Your task to perform on an android device: turn smart compose on in the gmail app Image 0: 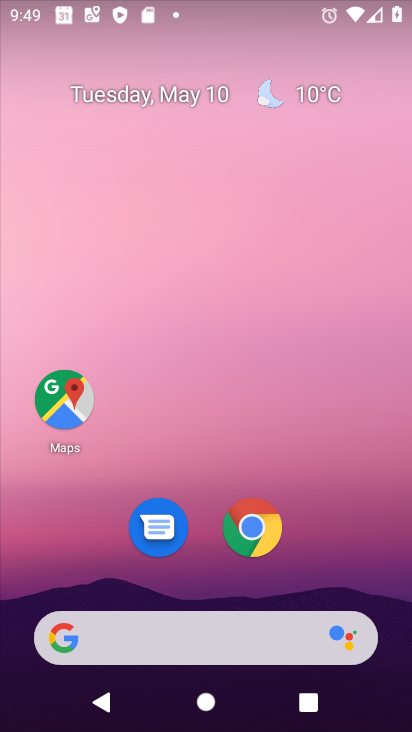
Step 0: drag from (225, 730) to (225, 191)
Your task to perform on an android device: turn smart compose on in the gmail app Image 1: 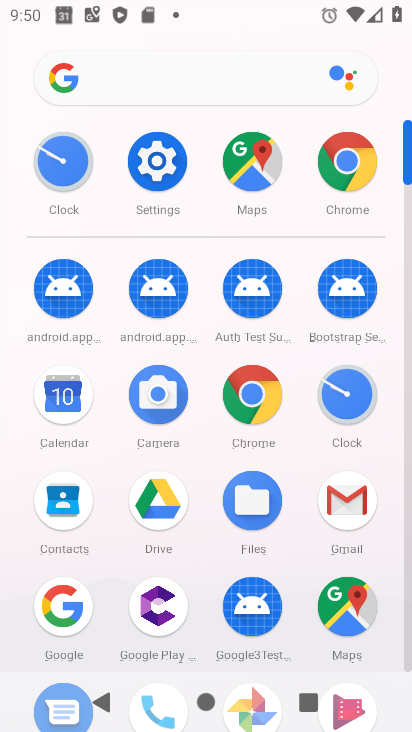
Step 1: click (346, 492)
Your task to perform on an android device: turn smart compose on in the gmail app Image 2: 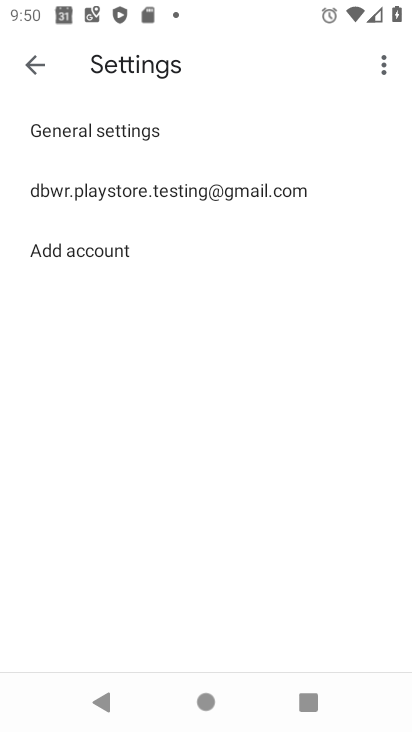
Step 2: click (143, 192)
Your task to perform on an android device: turn smart compose on in the gmail app Image 3: 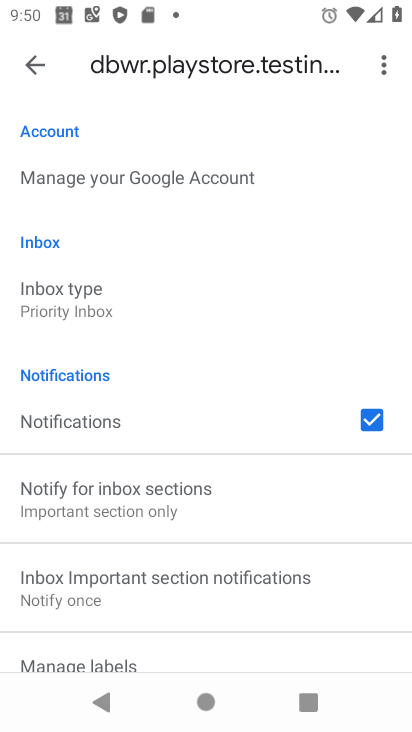
Step 3: task complete